Your task to perform on an android device: turn on javascript in the chrome app Image 0: 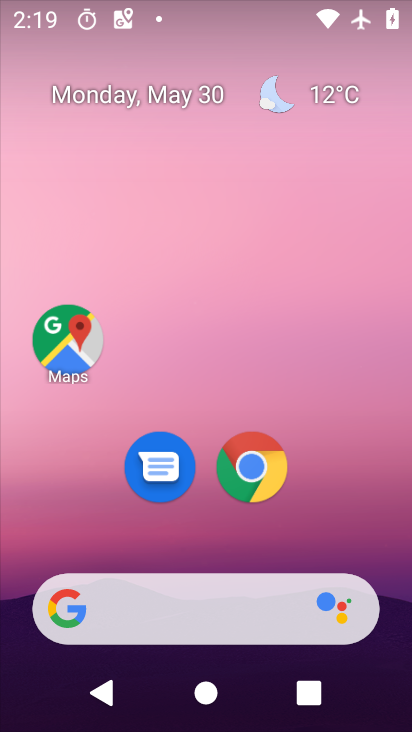
Step 0: click (232, 451)
Your task to perform on an android device: turn on javascript in the chrome app Image 1: 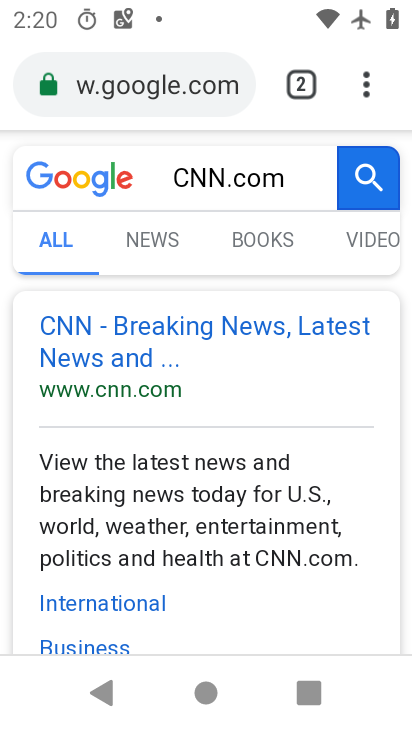
Step 1: click (360, 83)
Your task to perform on an android device: turn on javascript in the chrome app Image 2: 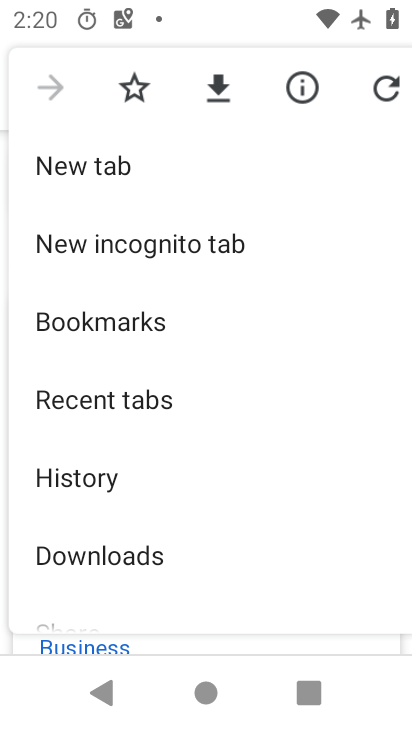
Step 2: drag from (234, 588) to (302, 275)
Your task to perform on an android device: turn on javascript in the chrome app Image 3: 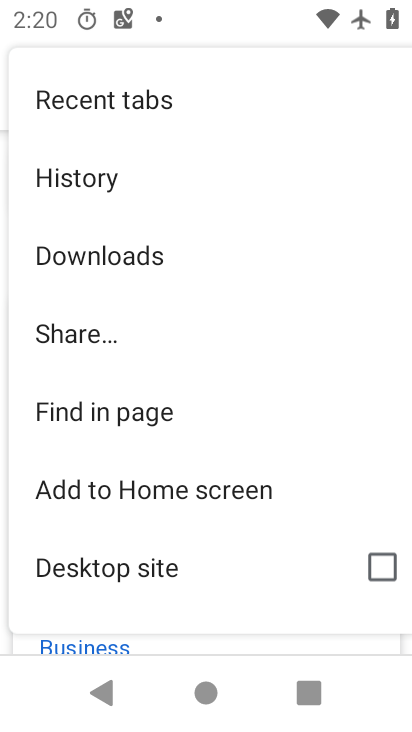
Step 3: drag from (271, 539) to (291, 336)
Your task to perform on an android device: turn on javascript in the chrome app Image 4: 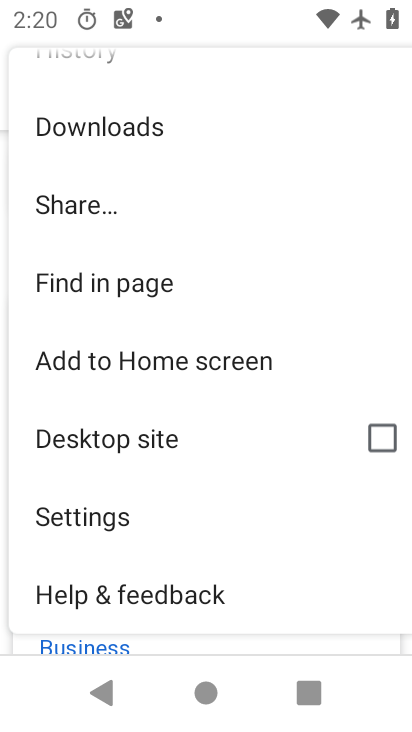
Step 4: click (87, 516)
Your task to perform on an android device: turn on javascript in the chrome app Image 5: 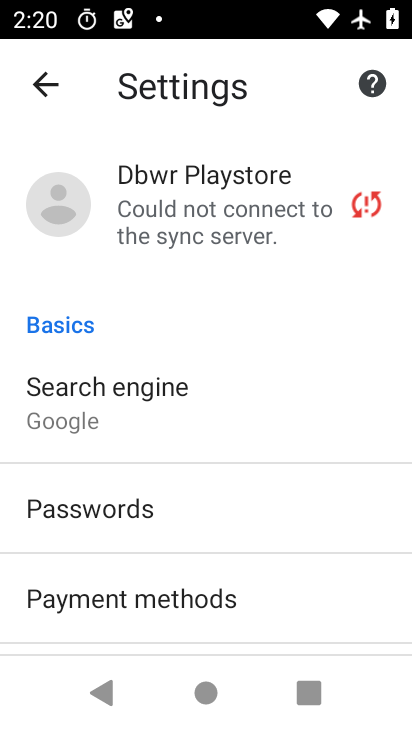
Step 5: drag from (249, 606) to (322, 222)
Your task to perform on an android device: turn on javascript in the chrome app Image 6: 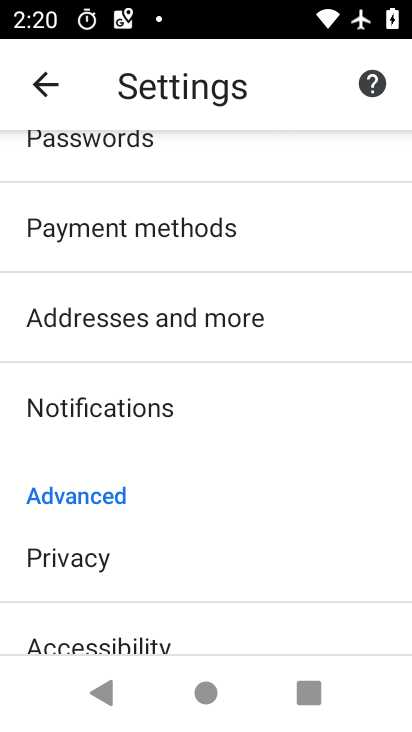
Step 6: drag from (278, 633) to (309, 343)
Your task to perform on an android device: turn on javascript in the chrome app Image 7: 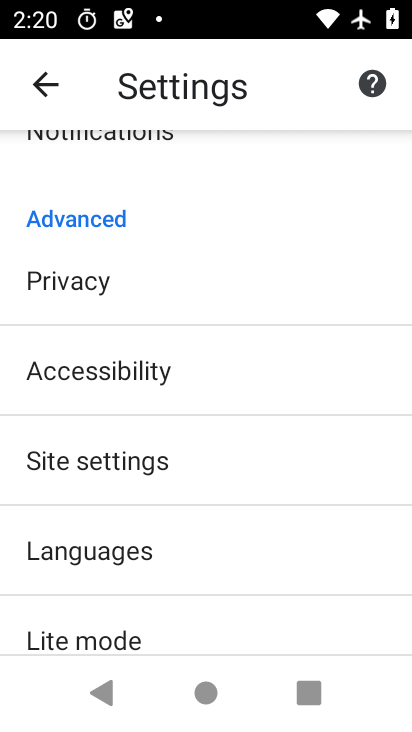
Step 7: drag from (216, 630) to (277, 391)
Your task to perform on an android device: turn on javascript in the chrome app Image 8: 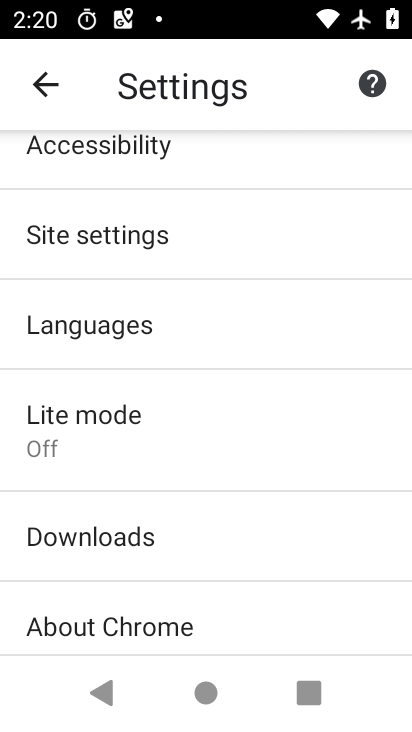
Step 8: drag from (277, 615) to (304, 326)
Your task to perform on an android device: turn on javascript in the chrome app Image 9: 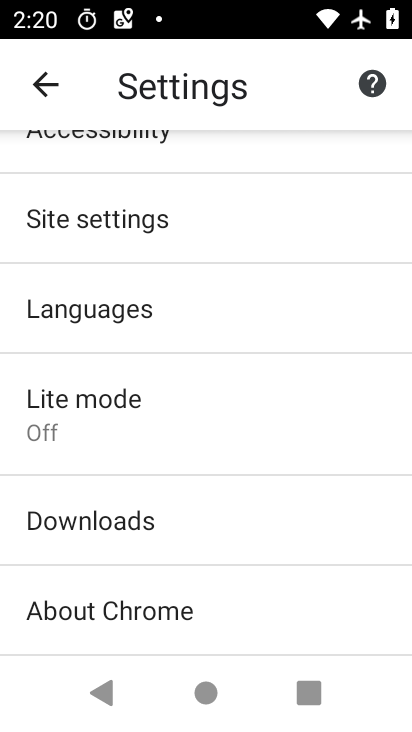
Step 9: drag from (282, 629) to (338, 308)
Your task to perform on an android device: turn on javascript in the chrome app Image 10: 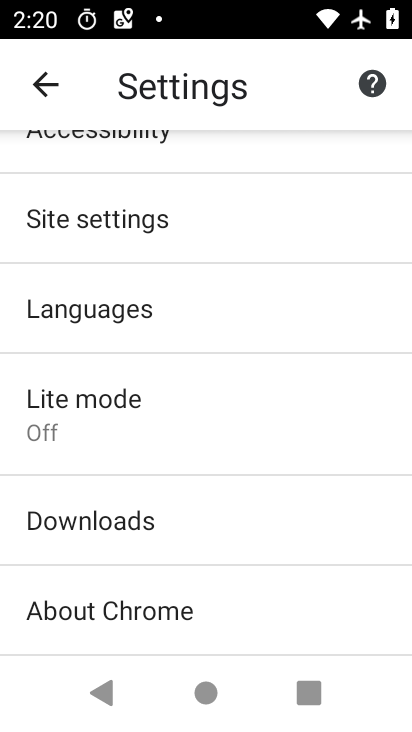
Step 10: drag from (298, 221) to (310, 512)
Your task to perform on an android device: turn on javascript in the chrome app Image 11: 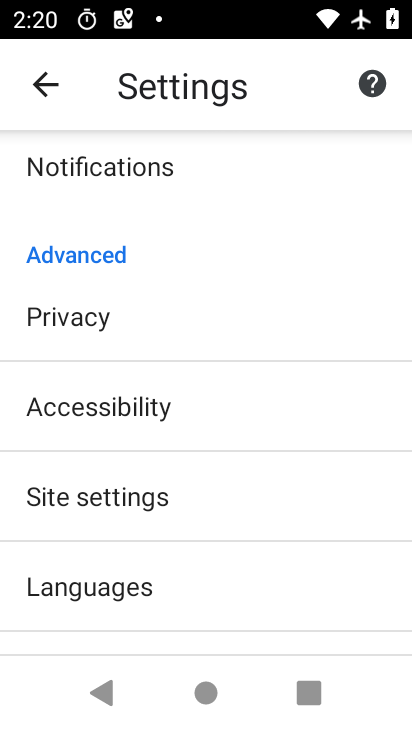
Step 11: drag from (305, 627) to (349, 305)
Your task to perform on an android device: turn on javascript in the chrome app Image 12: 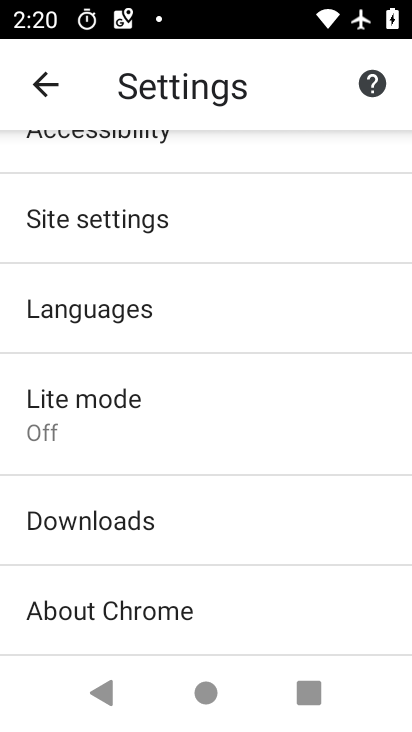
Step 12: drag from (274, 634) to (341, 311)
Your task to perform on an android device: turn on javascript in the chrome app Image 13: 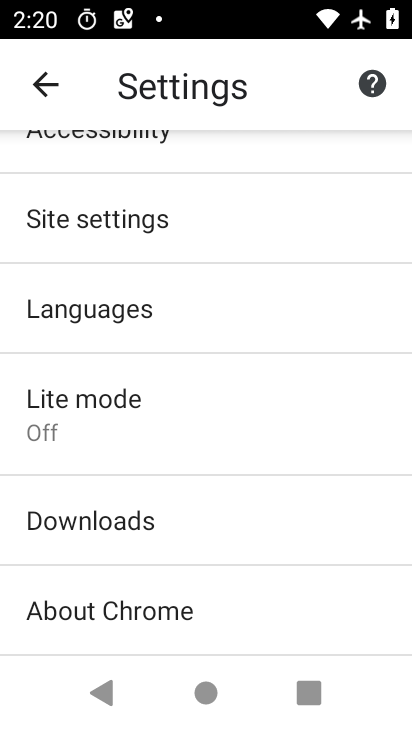
Step 13: click (121, 215)
Your task to perform on an android device: turn on javascript in the chrome app Image 14: 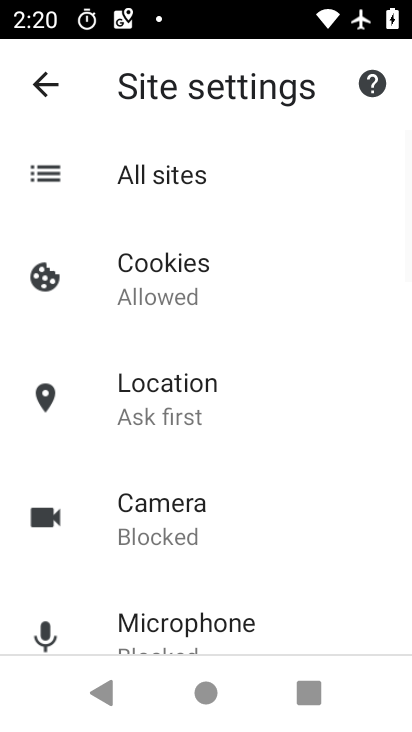
Step 14: drag from (279, 588) to (304, 295)
Your task to perform on an android device: turn on javascript in the chrome app Image 15: 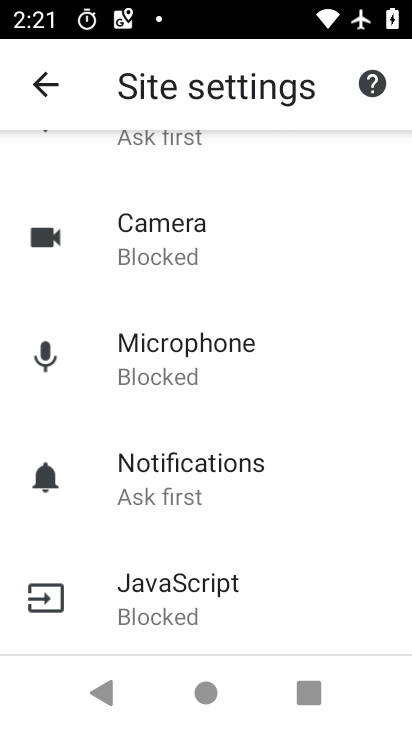
Step 15: click (196, 597)
Your task to perform on an android device: turn on javascript in the chrome app Image 16: 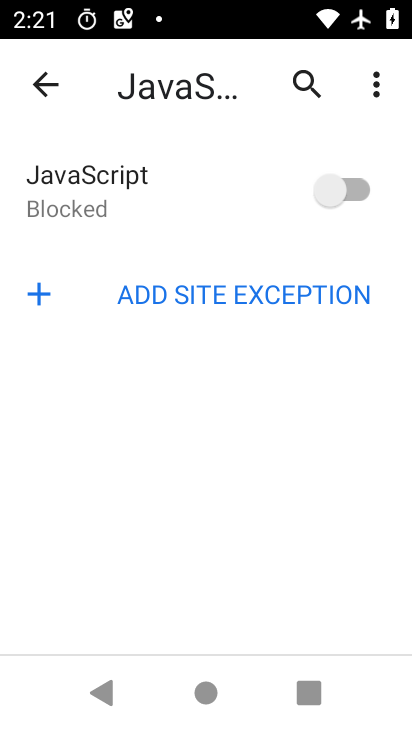
Step 16: click (355, 193)
Your task to perform on an android device: turn on javascript in the chrome app Image 17: 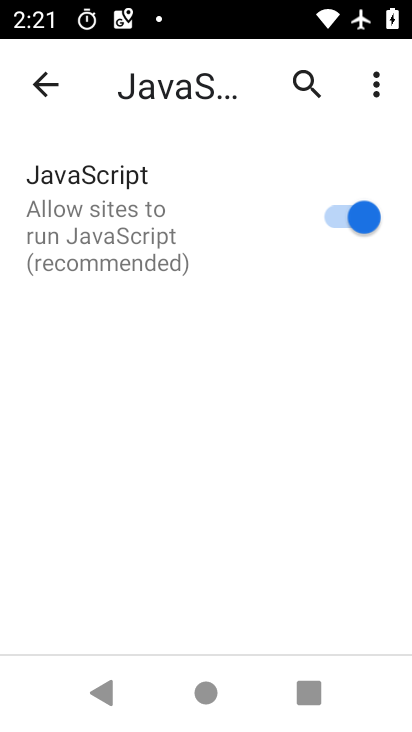
Step 17: task complete